Your task to perform on an android device: Go to Google Image 0: 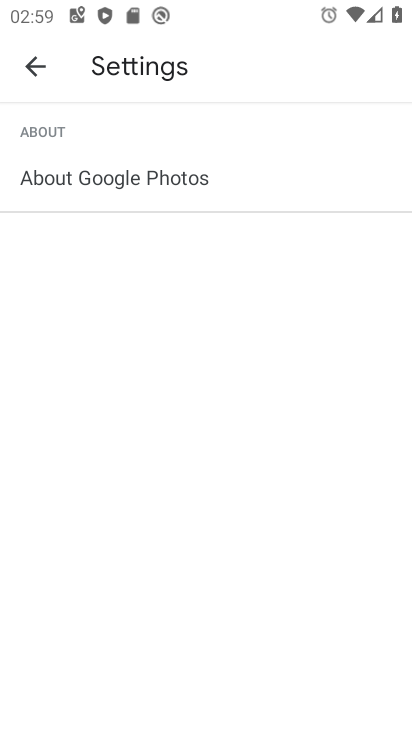
Step 0: press home button
Your task to perform on an android device: Go to Google Image 1: 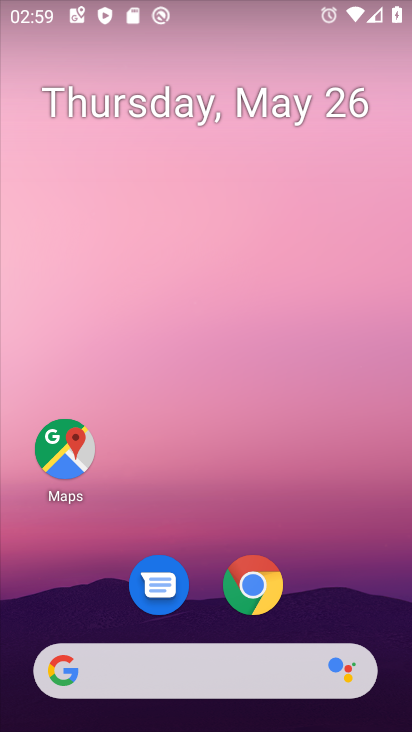
Step 1: click (159, 662)
Your task to perform on an android device: Go to Google Image 2: 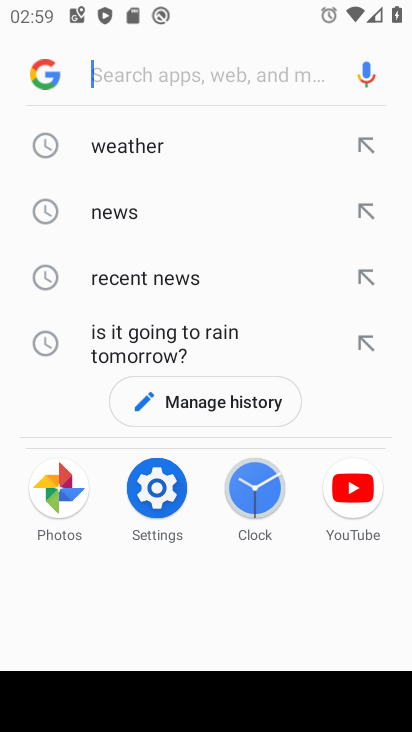
Step 2: click (44, 72)
Your task to perform on an android device: Go to Google Image 3: 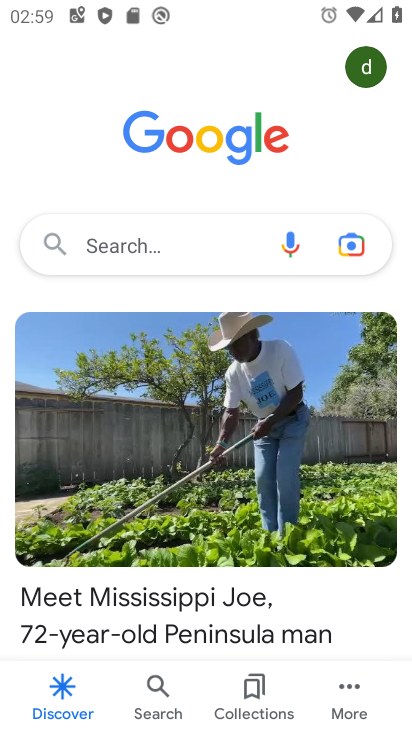
Step 3: task complete